Your task to perform on an android device: check storage Image 0: 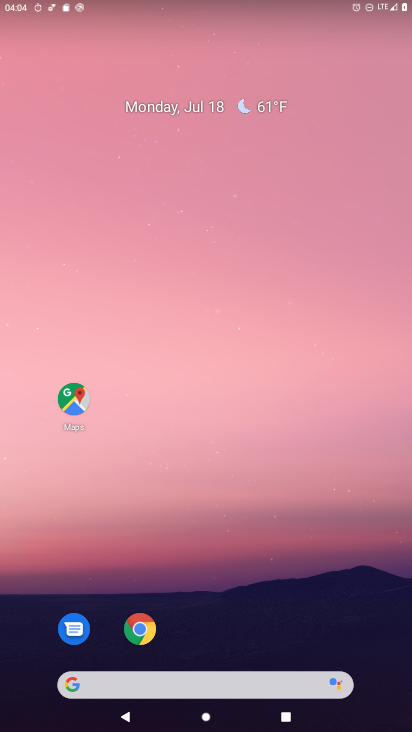
Step 0: drag from (216, 680) to (229, 109)
Your task to perform on an android device: check storage Image 1: 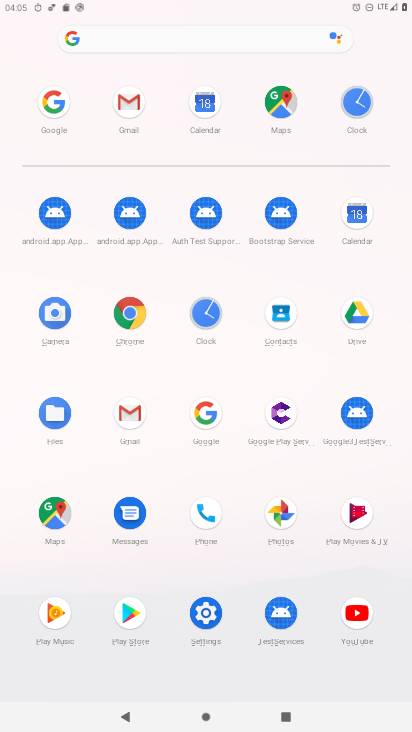
Step 1: click (206, 612)
Your task to perform on an android device: check storage Image 2: 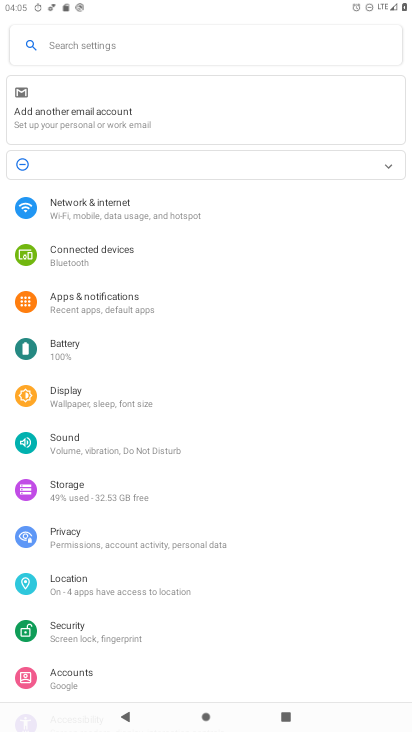
Step 2: click (85, 491)
Your task to perform on an android device: check storage Image 3: 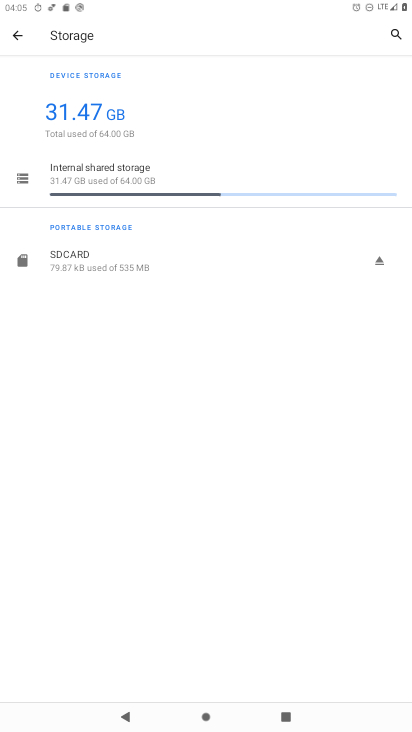
Step 3: task complete